Your task to perform on an android device: Go to accessibility settings Image 0: 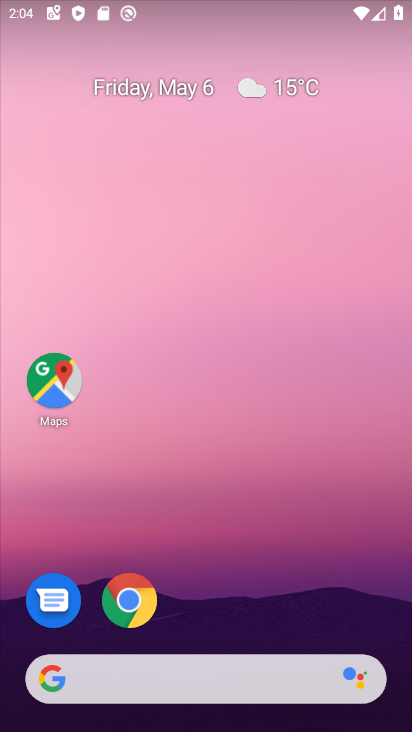
Step 0: drag from (328, 618) to (239, 70)
Your task to perform on an android device: Go to accessibility settings Image 1: 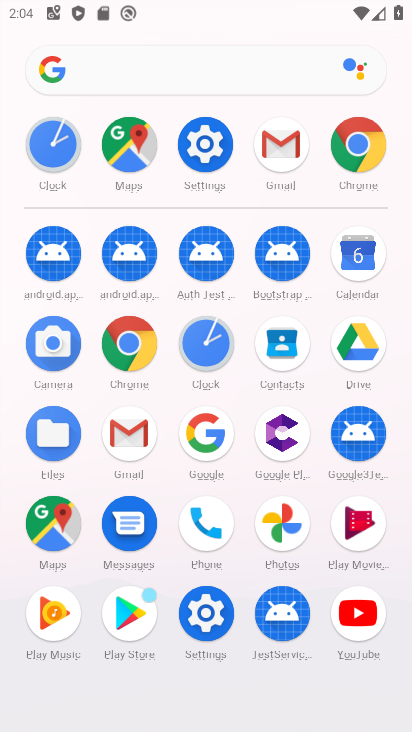
Step 1: click (200, 146)
Your task to perform on an android device: Go to accessibility settings Image 2: 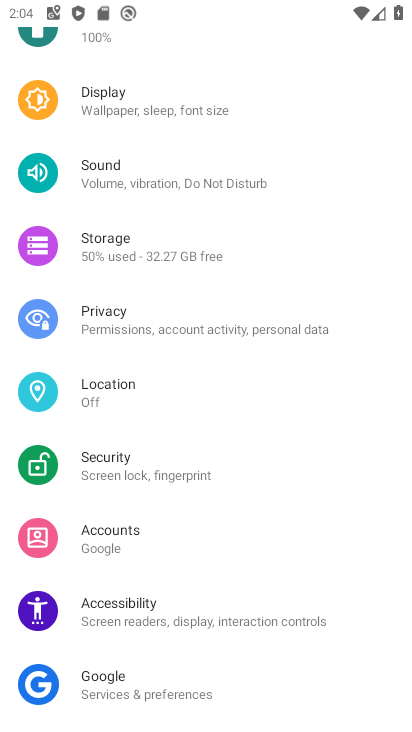
Step 2: click (84, 612)
Your task to perform on an android device: Go to accessibility settings Image 3: 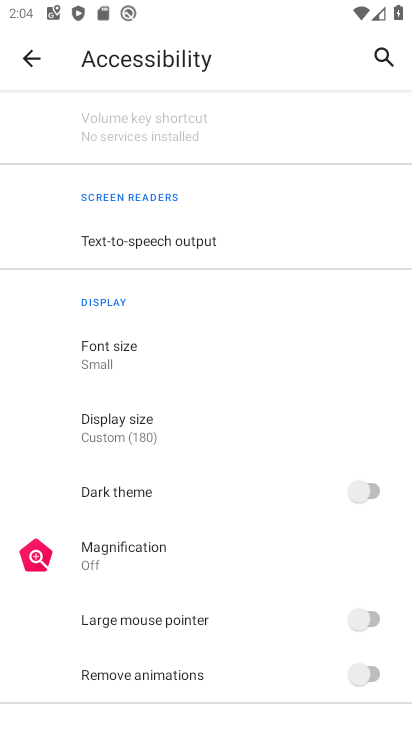
Step 3: task complete